Your task to perform on an android device: open app "PlayWell" (install if not already installed) Image 0: 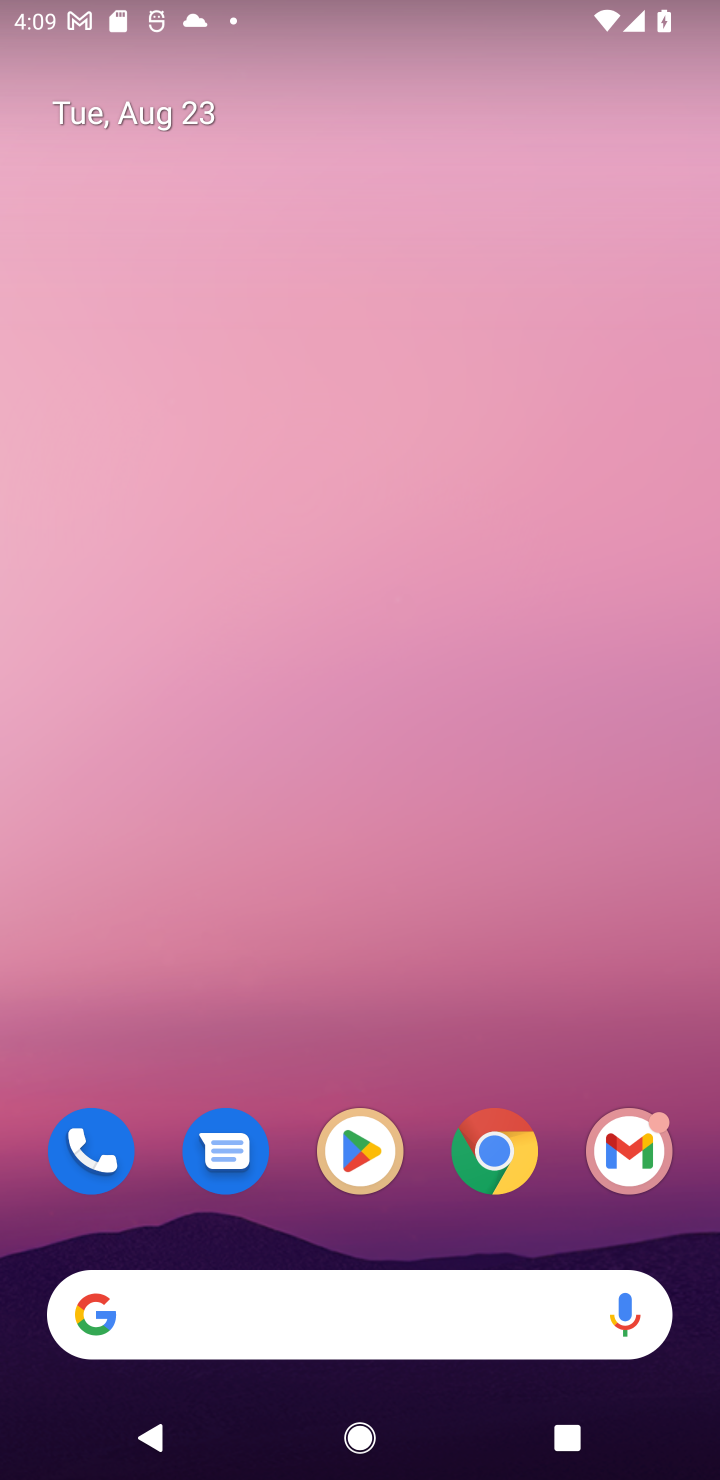
Step 0: press home button
Your task to perform on an android device: open app "PlayWell" (install if not already installed) Image 1: 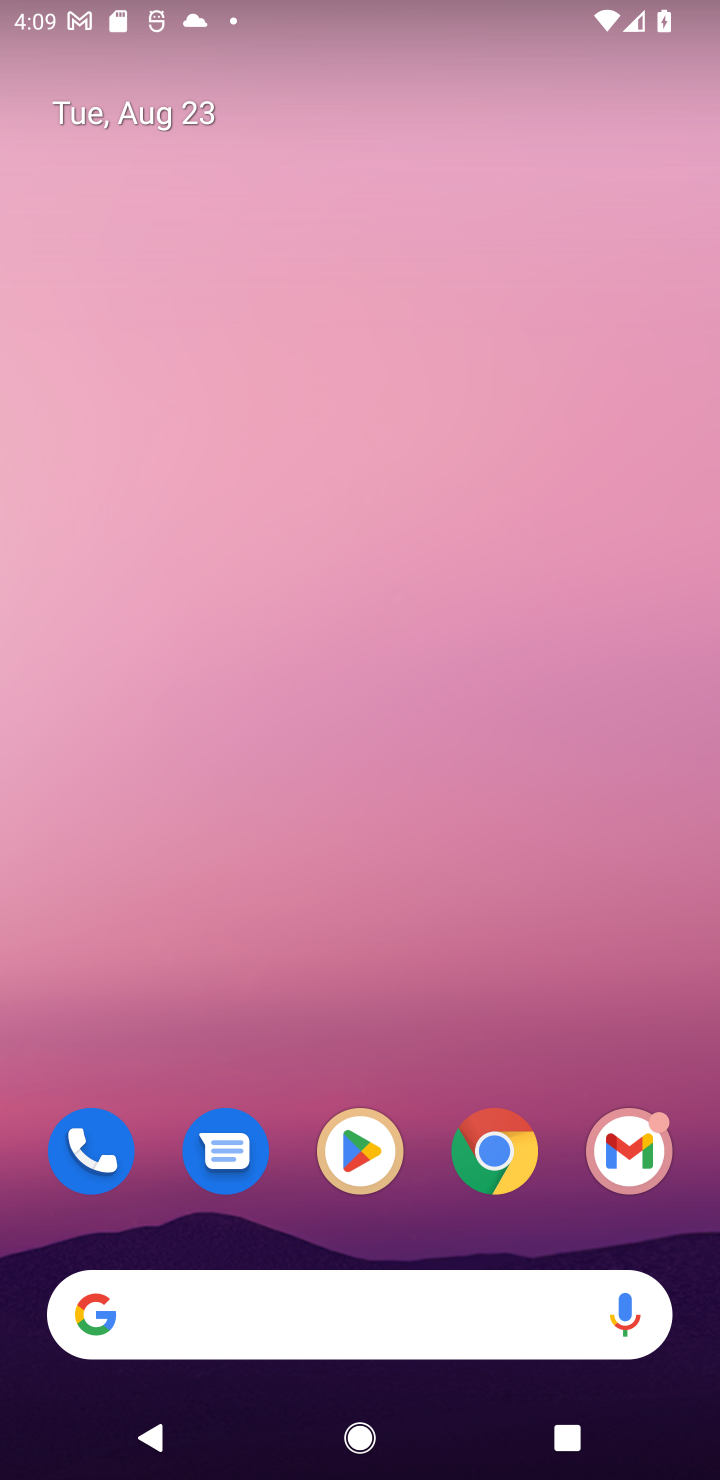
Step 1: click (354, 1162)
Your task to perform on an android device: open app "PlayWell" (install if not already installed) Image 2: 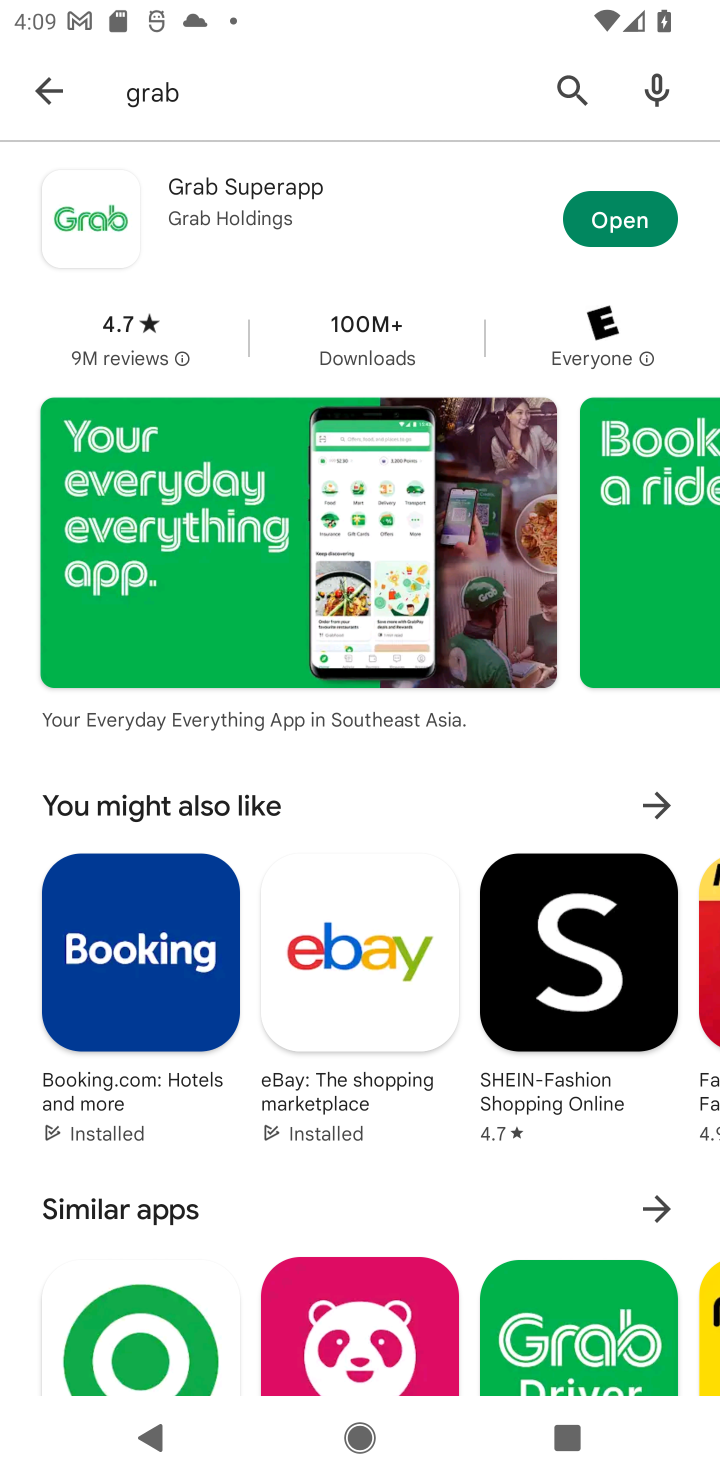
Step 2: click (563, 83)
Your task to perform on an android device: open app "PlayWell" (install if not already installed) Image 3: 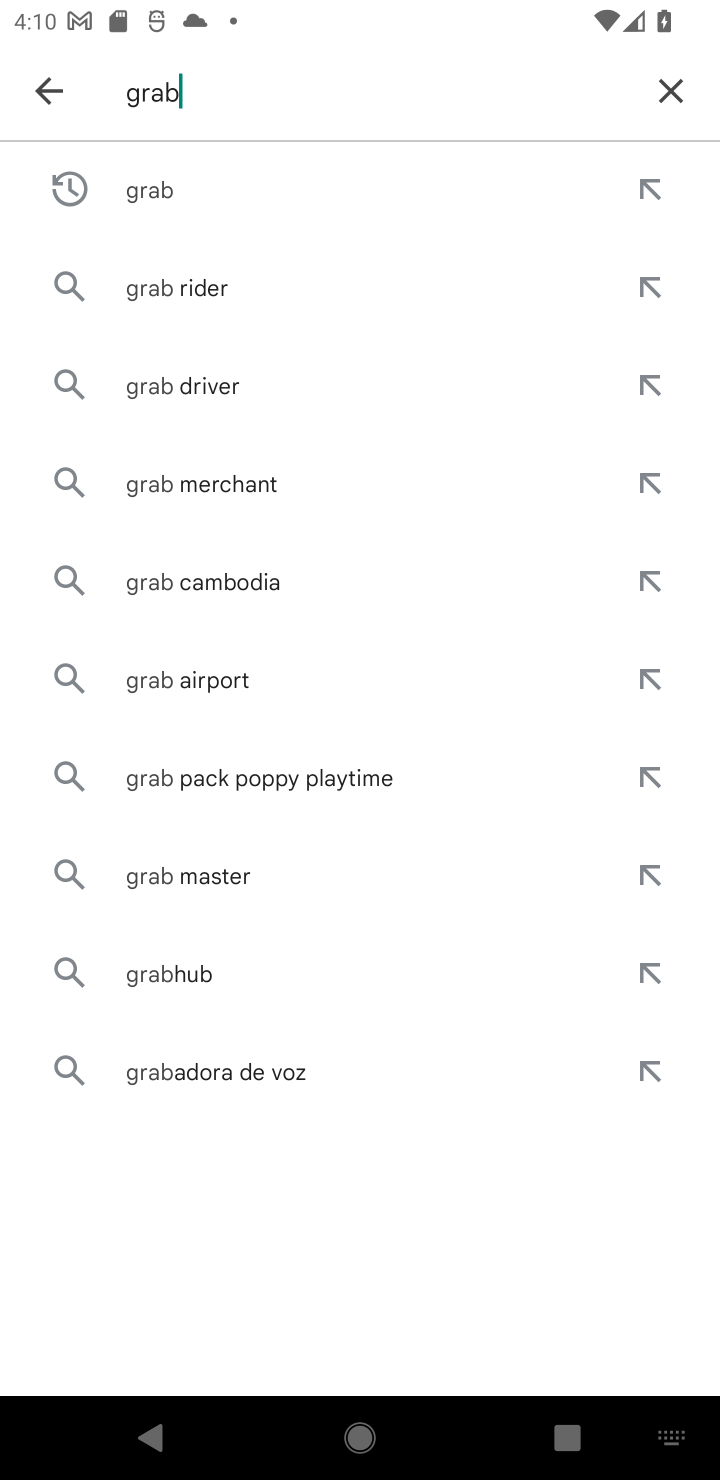
Step 3: click (664, 88)
Your task to perform on an android device: open app "PlayWell" (install if not already installed) Image 4: 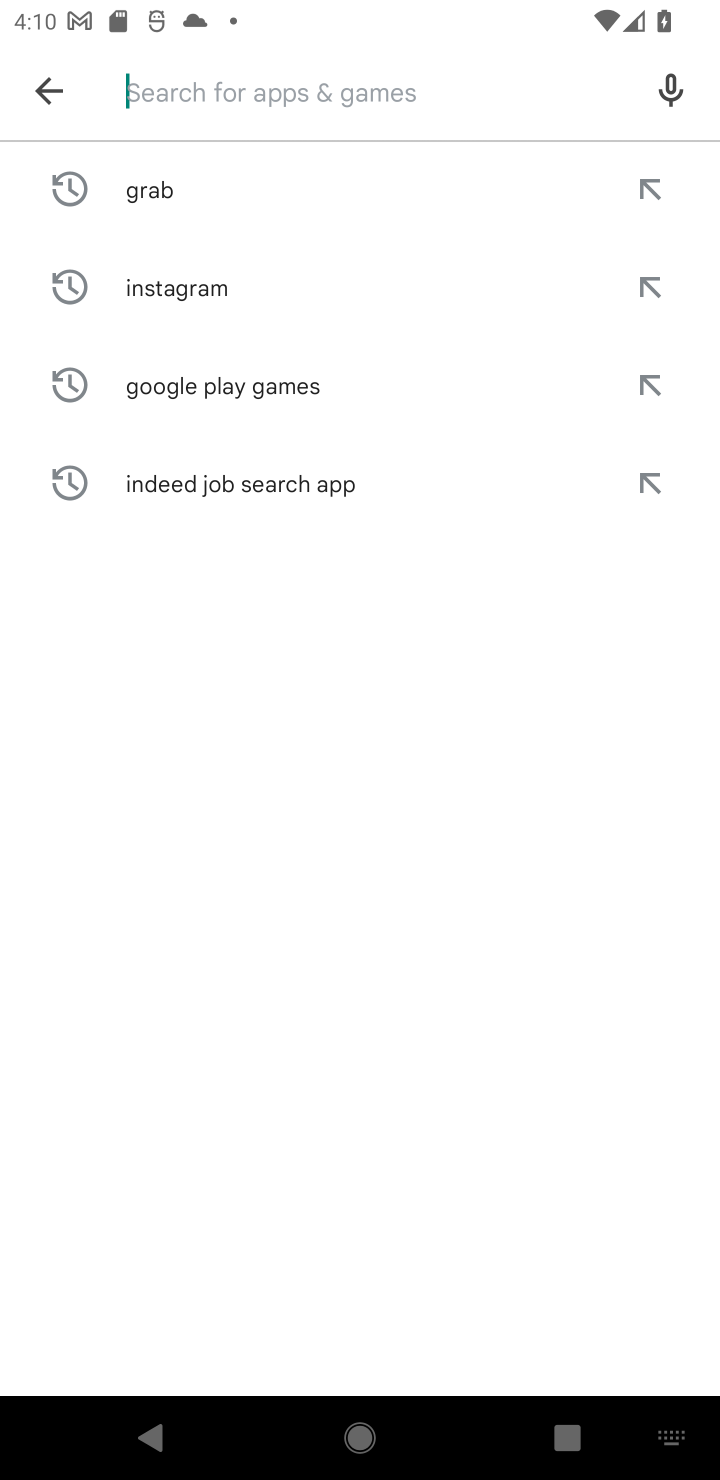
Step 4: type "PlayWell"
Your task to perform on an android device: open app "PlayWell" (install if not already installed) Image 5: 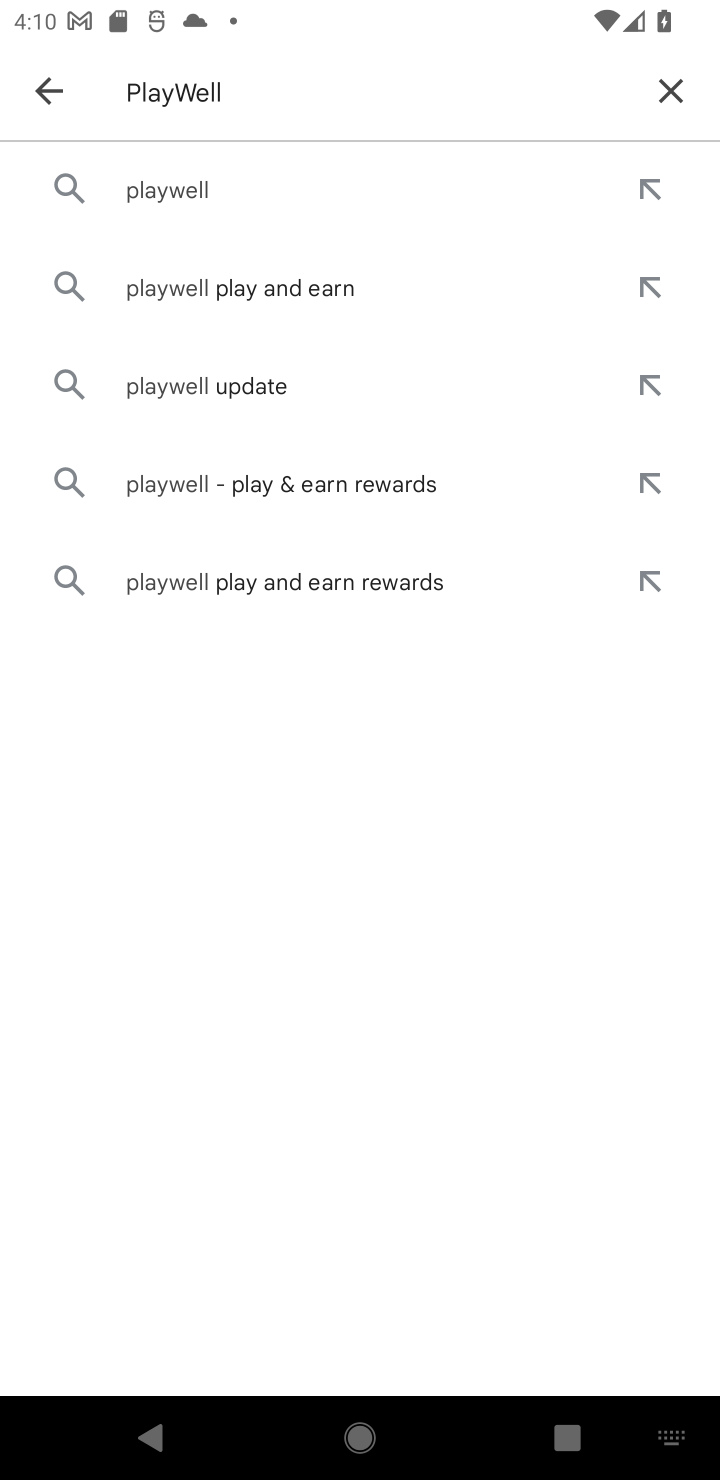
Step 5: click (195, 189)
Your task to perform on an android device: open app "PlayWell" (install if not already installed) Image 6: 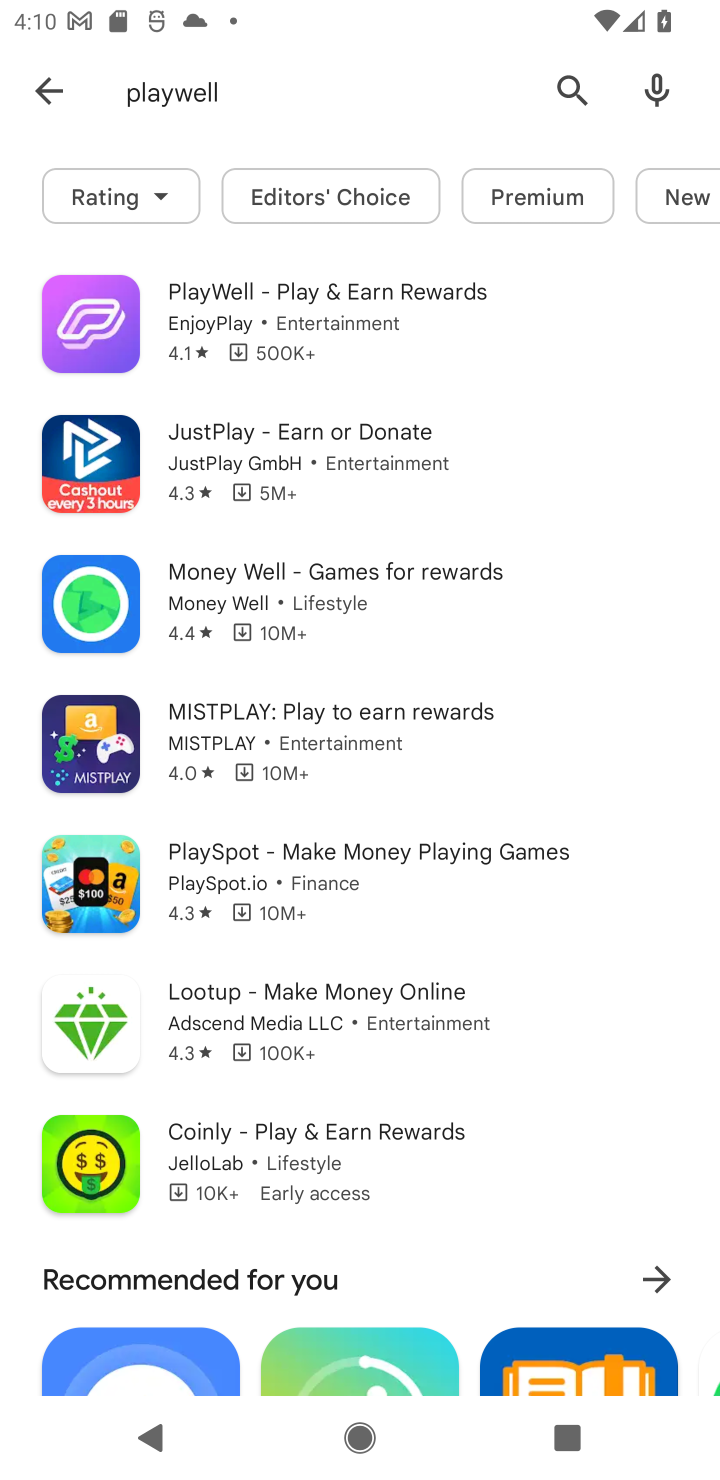
Step 6: click (295, 313)
Your task to perform on an android device: open app "PlayWell" (install if not already installed) Image 7: 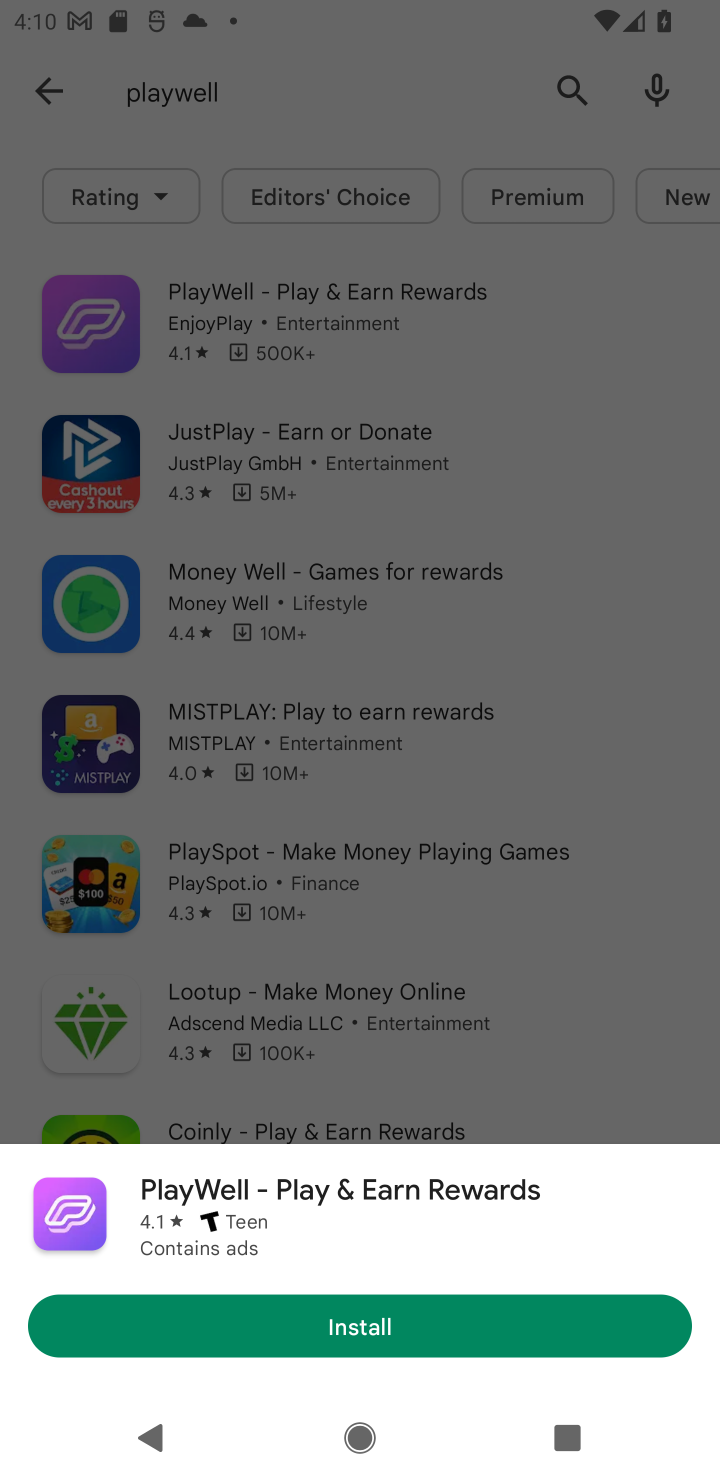
Step 7: click (348, 1325)
Your task to perform on an android device: open app "PlayWell" (install if not already installed) Image 8: 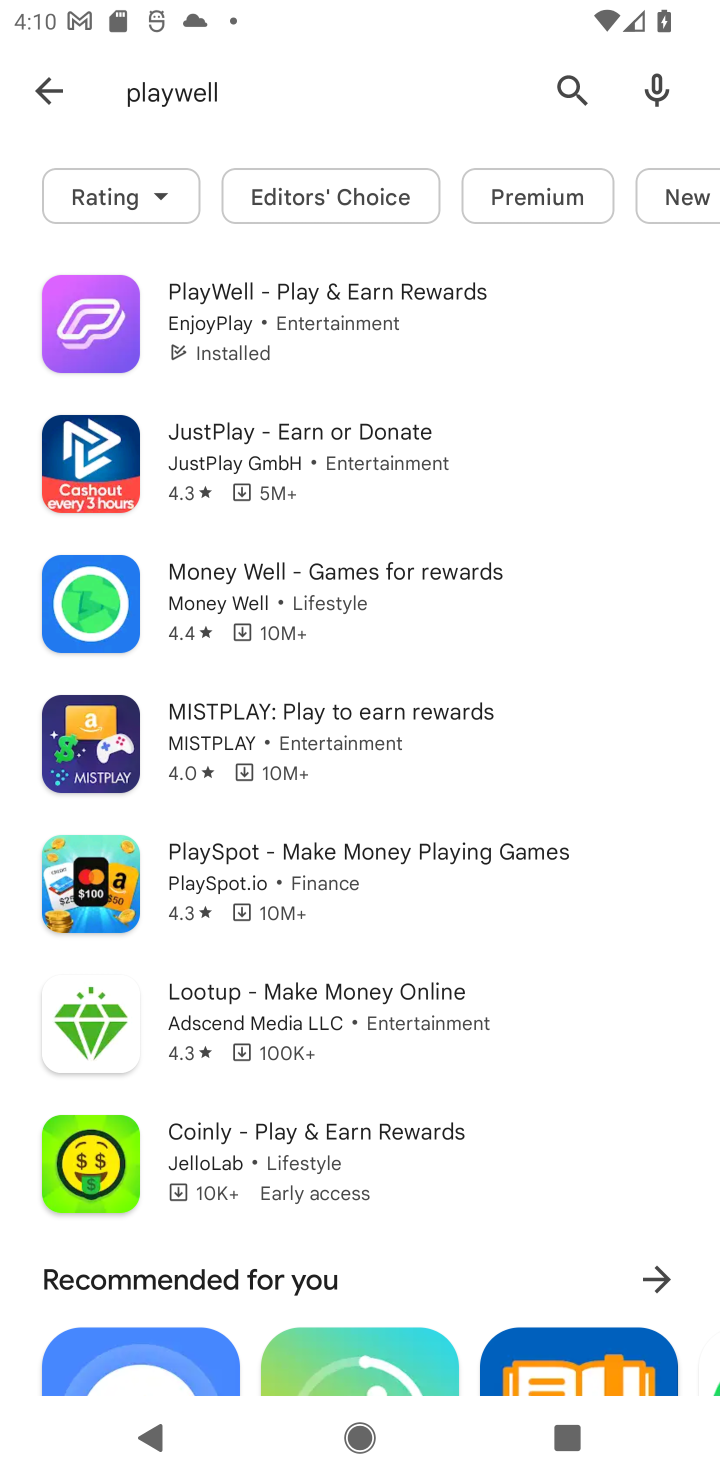
Step 8: click (236, 318)
Your task to perform on an android device: open app "PlayWell" (install if not already installed) Image 9: 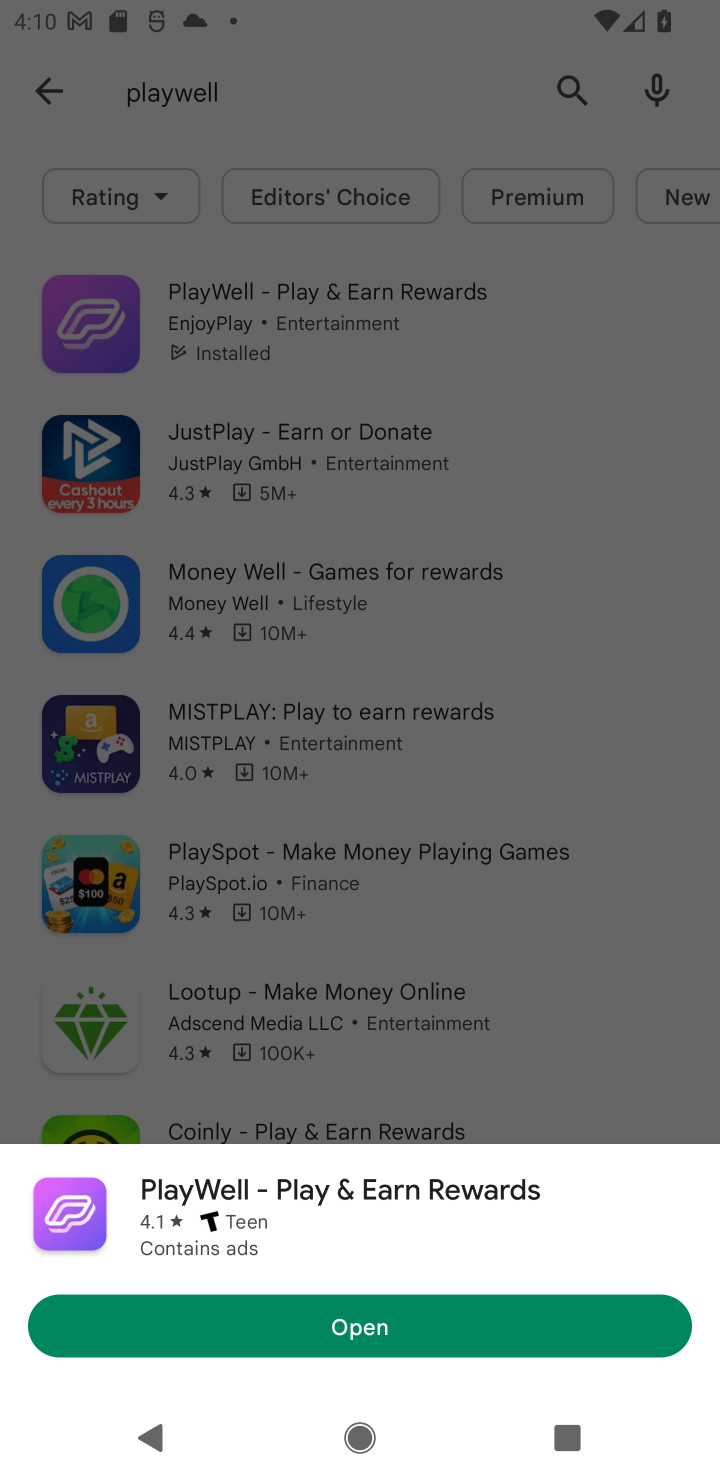
Step 9: click (375, 1331)
Your task to perform on an android device: open app "PlayWell" (install if not already installed) Image 10: 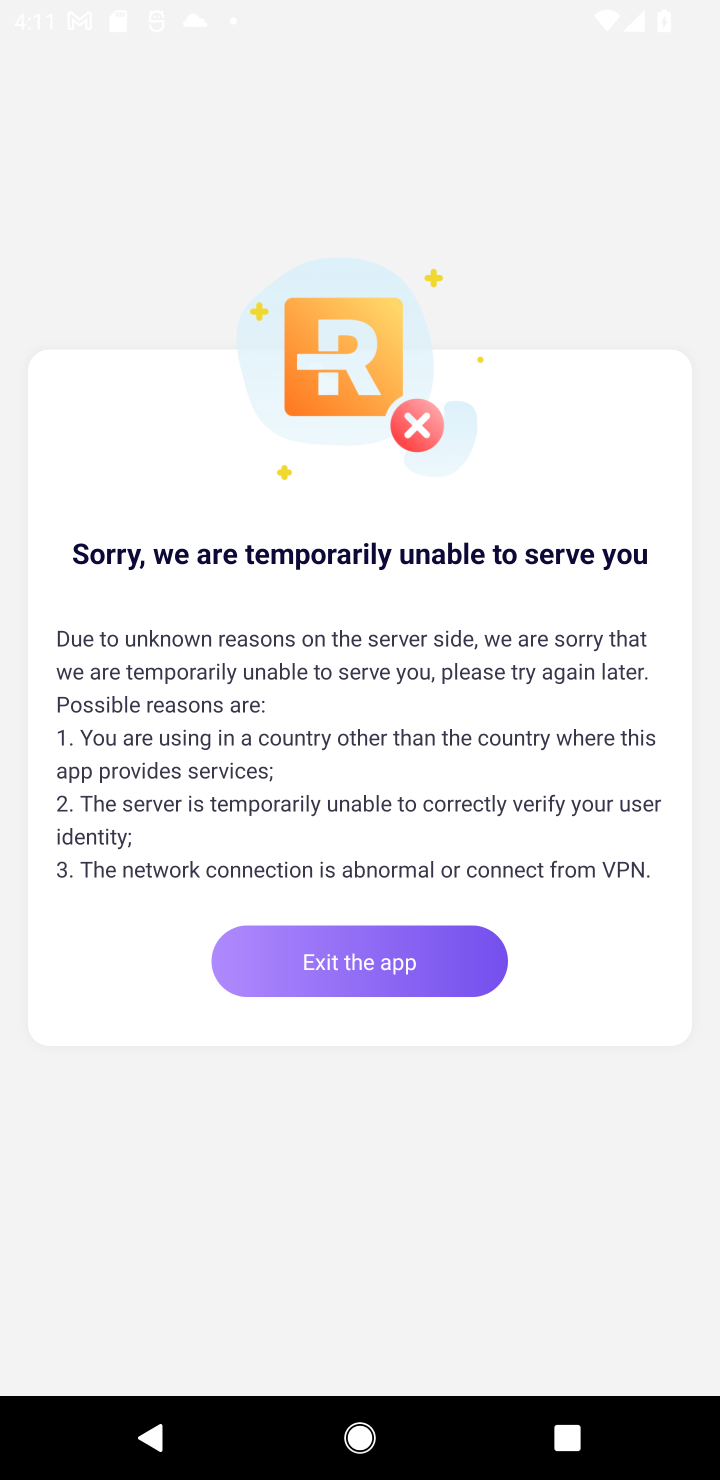
Step 10: task complete